Your task to perform on an android device: toggle wifi Image 0: 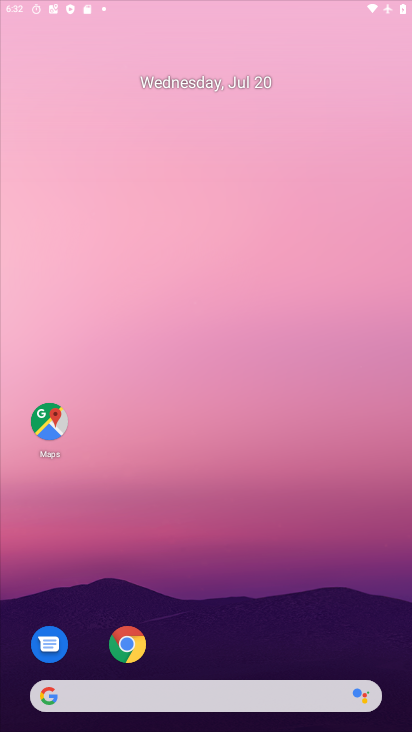
Step 0: press home button
Your task to perform on an android device: toggle wifi Image 1: 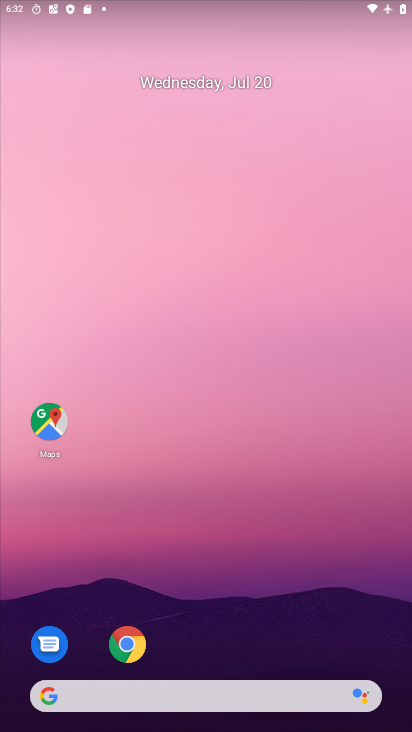
Step 1: drag from (223, 9) to (266, 603)
Your task to perform on an android device: toggle wifi Image 2: 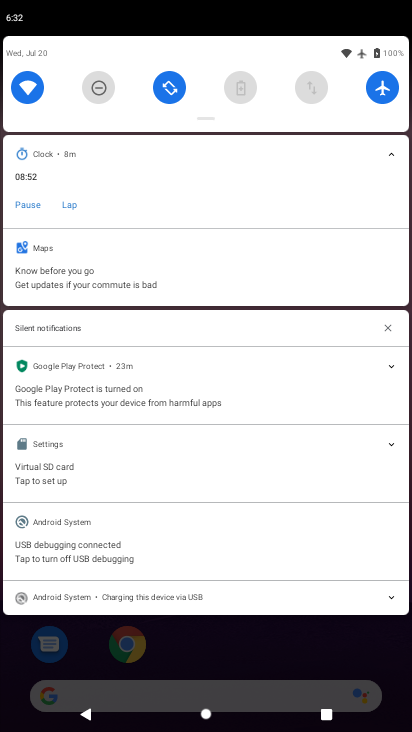
Step 2: click (23, 95)
Your task to perform on an android device: toggle wifi Image 3: 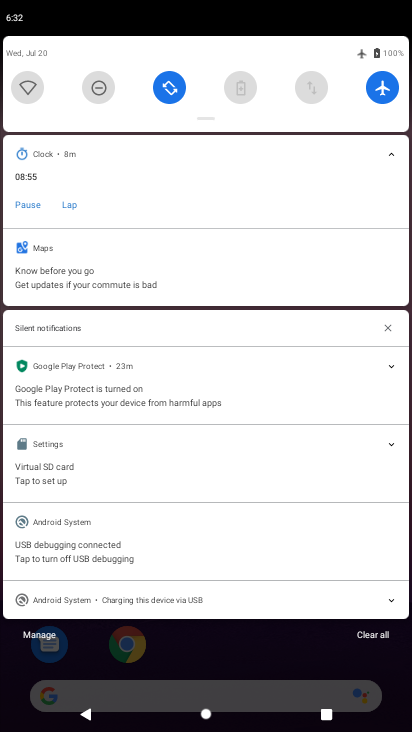
Step 3: task complete